Your task to perform on an android device: turn on the 24-hour format for clock Image 0: 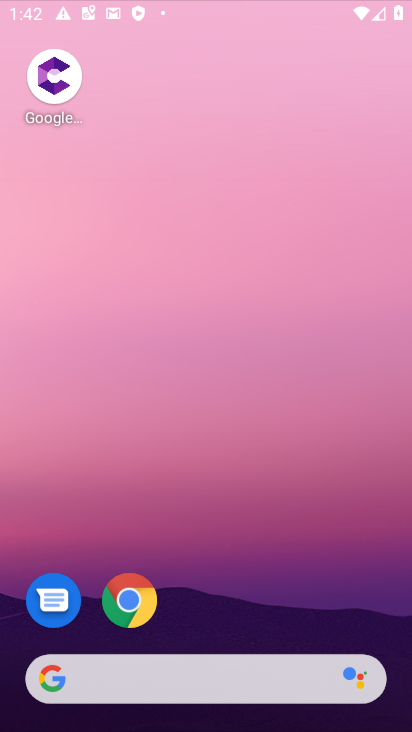
Step 0: press home button
Your task to perform on an android device: turn on the 24-hour format for clock Image 1: 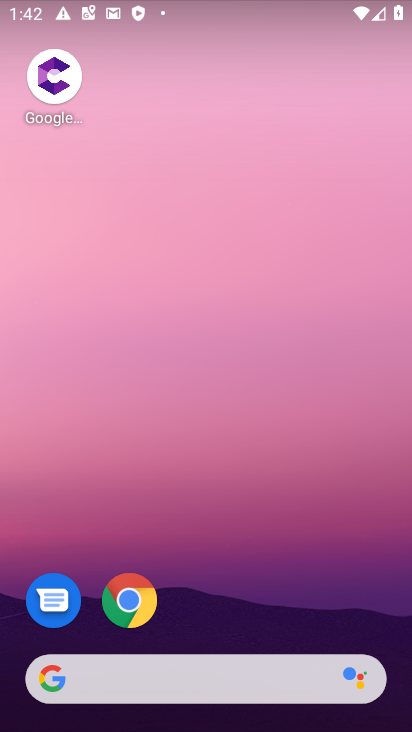
Step 1: drag from (284, 532) to (280, 2)
Your task to perform on an android device: turn on the 24-hour format for clock Image 2: 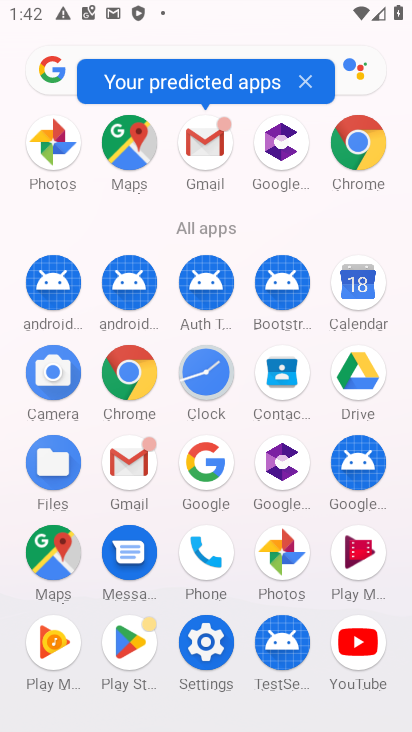
Step 2: click (201, 366)
Your task to perform on an android device: turn on the 24-hour format for clock Image 3: 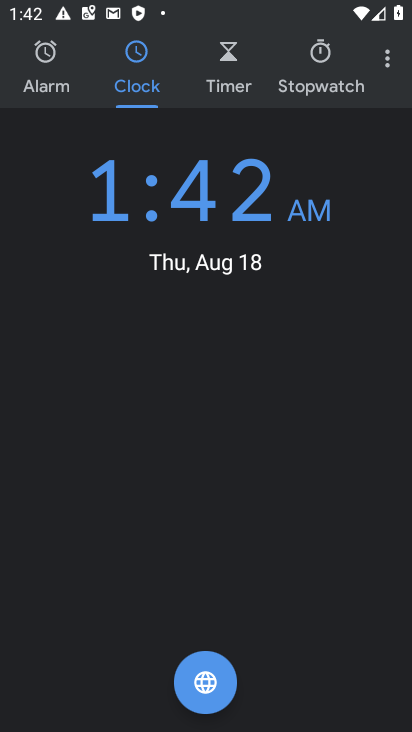
Step 3: click (380, 60)
Your task to perform on an android device: turn on the 24-hour format for clock Image 4: 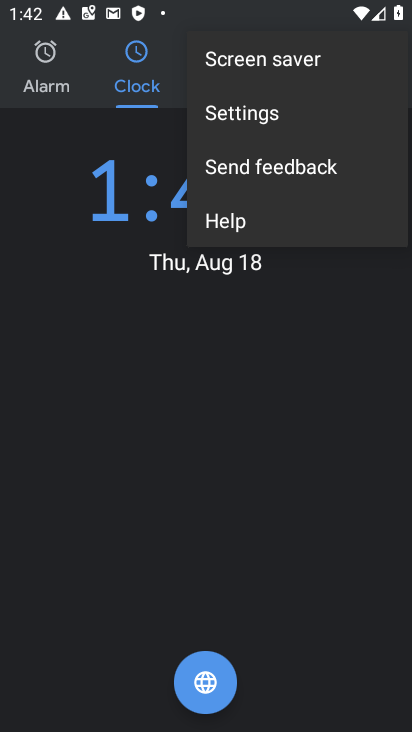
Step 4: click (280, 114)
Your task to perform on an android device: turn on the 24-hour format for clock Image 5: 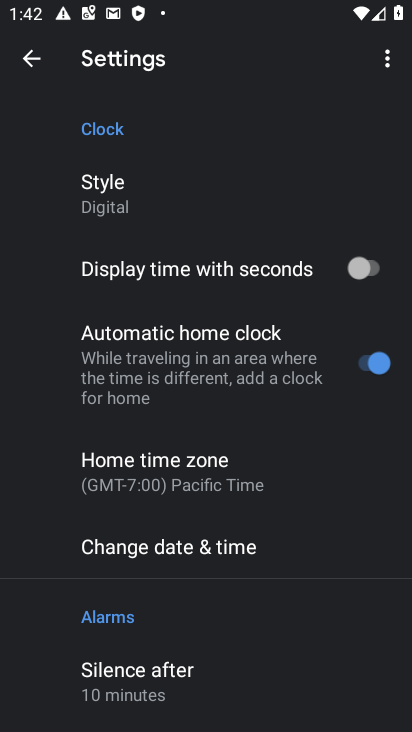
Step 5: click (117, 543)
Your task to perform on an android device: turn on the 24-hour format for clock Image 6: 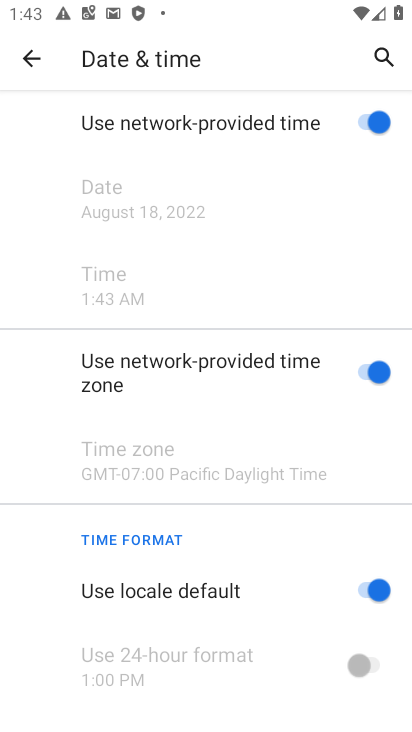
Step 6: click (363, 589)
Your task to perform on an android device: turn on the 24-hour format for clock Image 7: 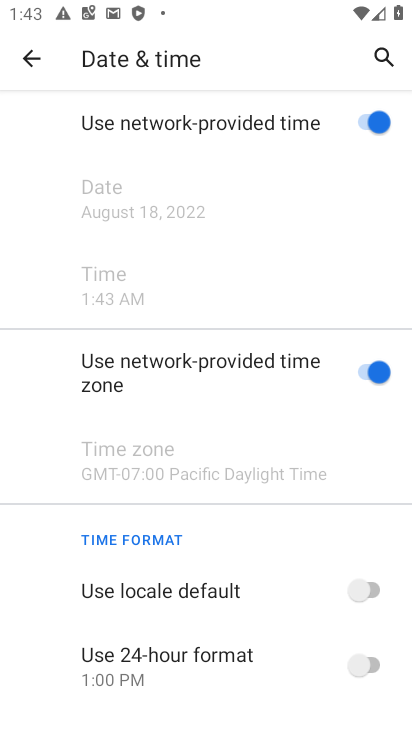
Step 7: click (378, 667)
Your task to perform on an android device: turn on the 24-hour format for clock Image 8: 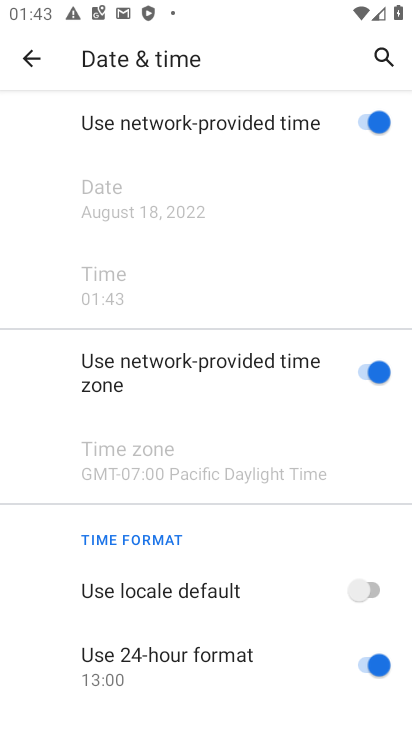
Step 8: task complete